Your task to perform on an android device: toggle show notifications on the lock screen Image 0: 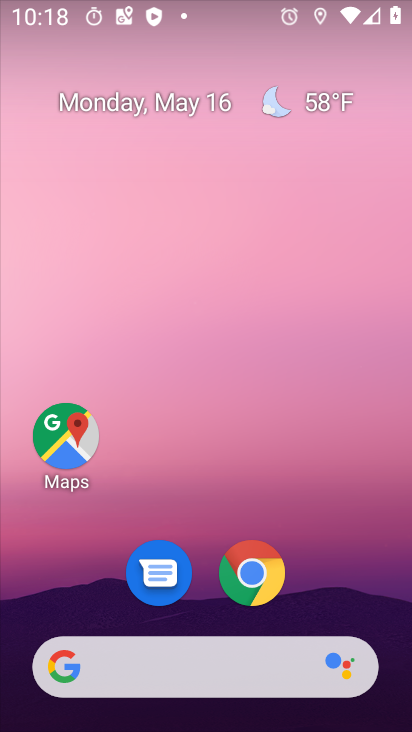
Step 0: drag from (277, 677) to (145, 8)
Your task to perform on an android device: toggle show notifications on the lock screen Image 1: 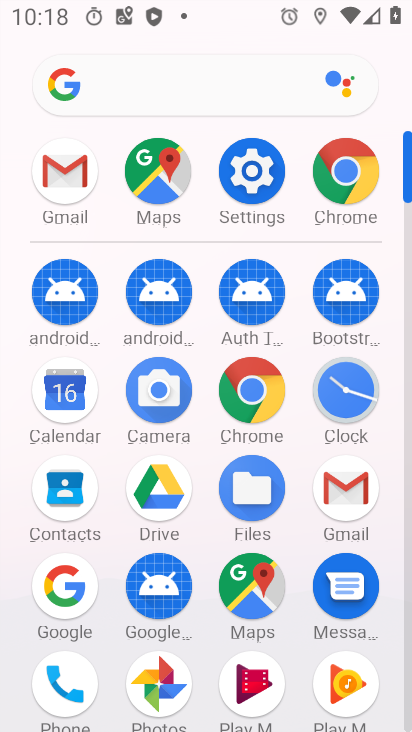
Step 1: click (267, 175)
Your task to perform on an android device: toggle show notifications on the lock screen Image 2: 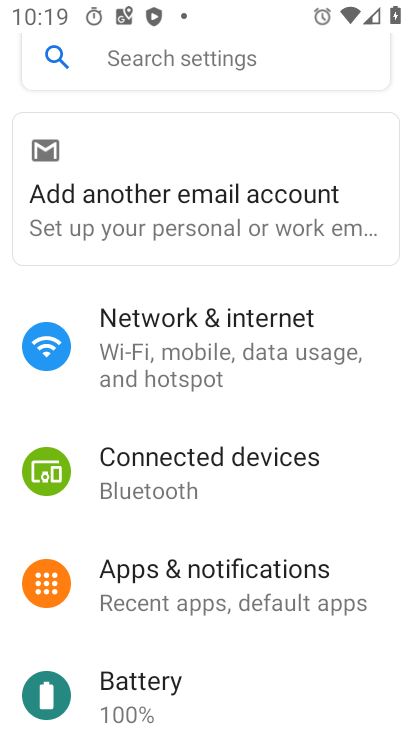
Step 2: click (226, 572)
Your task to perform on an android device: toggle show notifications on the lock screen Image 3: 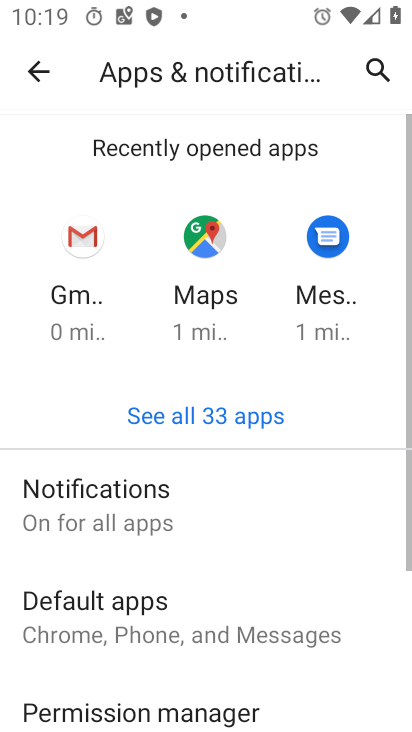
Step 3: click (89, 488)
Your task to perform on an android device: toggle show notifications on the lock screen Image 4: 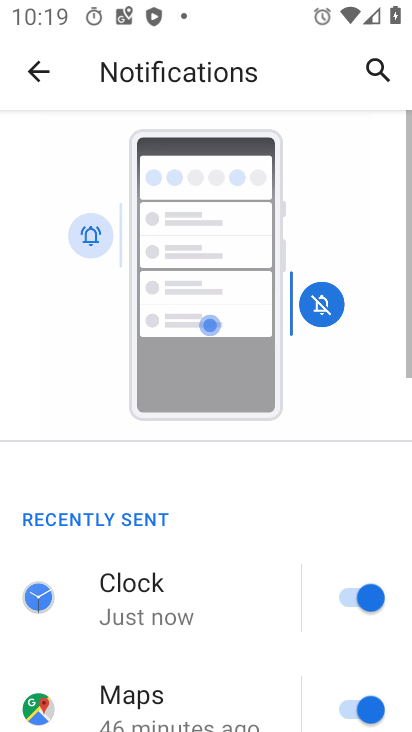
Step 4: drag from (146, 632) to (106, 107)
Your task to perform on an android device: toggle show notifications on the lock screen Image 5: 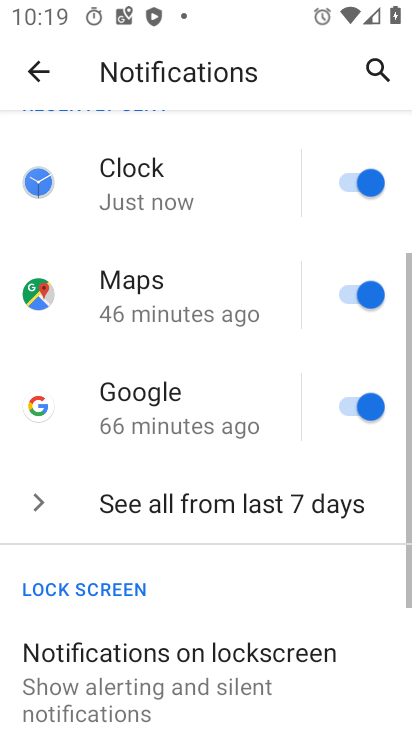
Step 5: drag from (219, 447) to (248, 21)
Your task to perform on an android device: toggle show notifications on the lock screen Image 6: 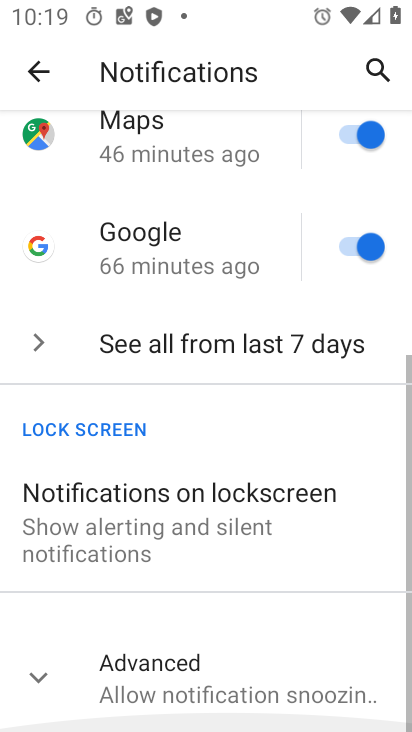
Step 6: drag from (301, 458) to (291, 78)
Your task to perform on an android device: toggle show notifications on the lock screen Image 7: 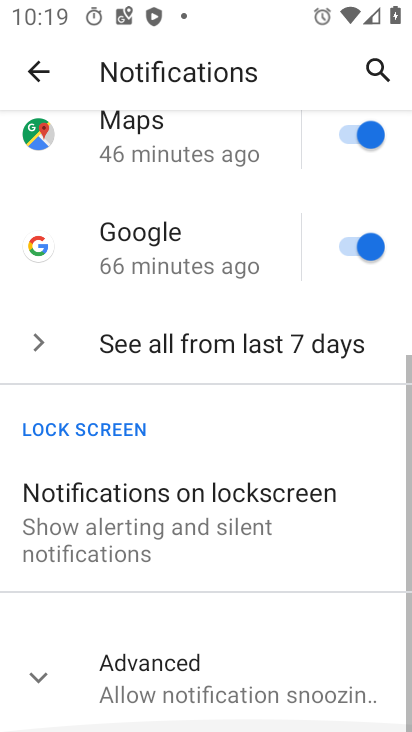
Step 7: drag from (243, 526) to (207, 118)
Your task to perform on an android device: toggle show notifications on the lock screen Image 8: 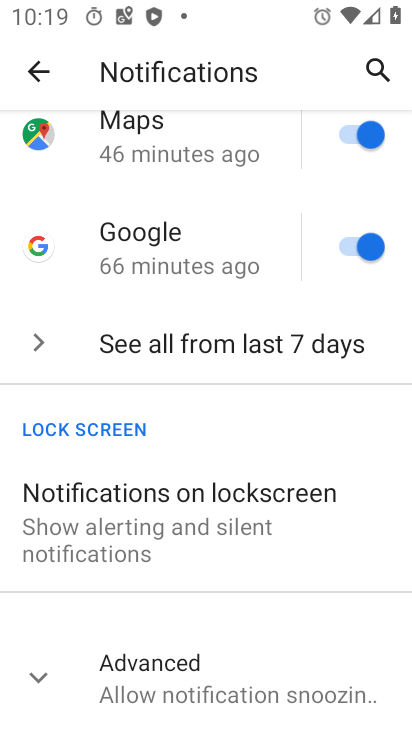
Step 8: click (125, 508)
Your task to perform on an android device: toggle show notifications on the lock screen Image 9: 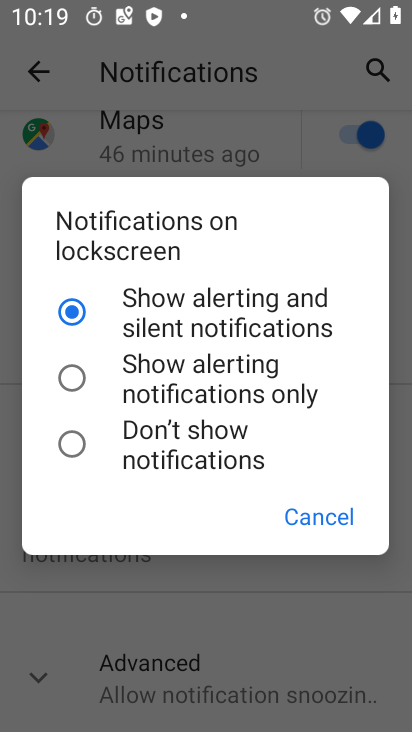
Step 9: click (307, 511)
Your task to perform on an android device: toggle show notifications on the lock screen Image 10: 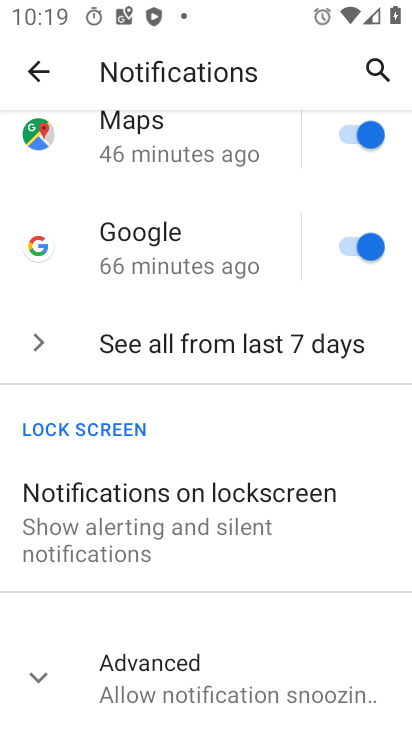
Step 10: task complete